Your task to perform on an android device: Go to eBay Image 0: 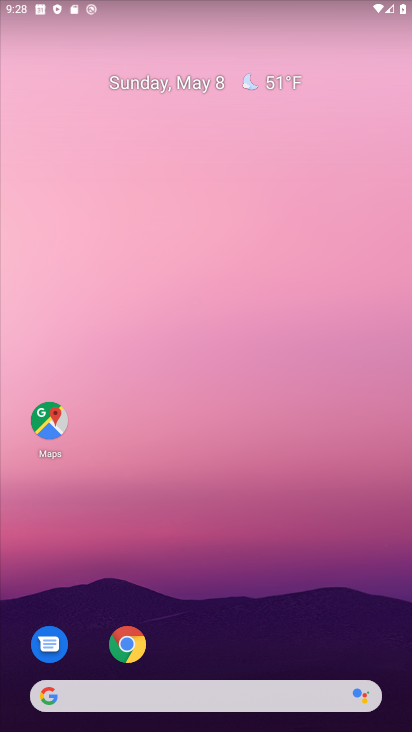
Step 0: drag from (225, 547) to (265, 114)
Your task to perform on an android device: Go to eBay Image 1: 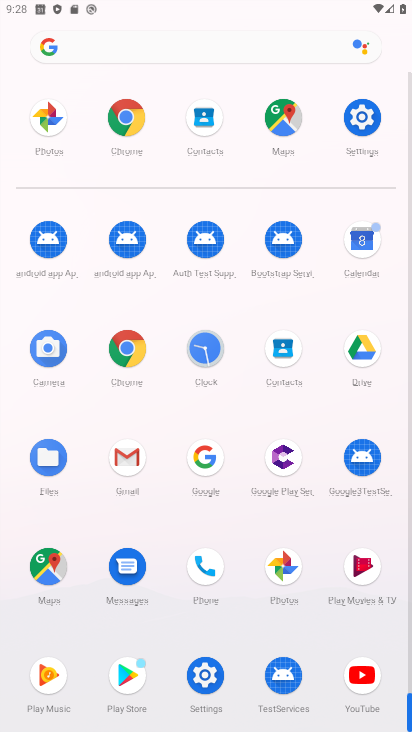
Step 1: click (218, 47)
Your task to perform on an android device: Go to eBay Image 2: 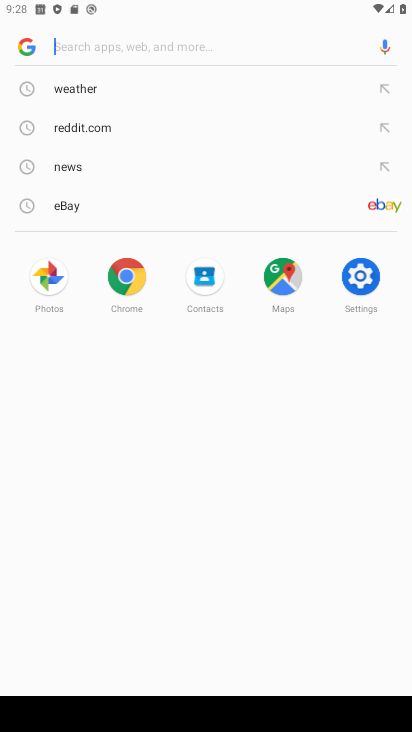
Step 2: click (85, 202)
Your task to perform on an android device: Go to eBay Image 3: 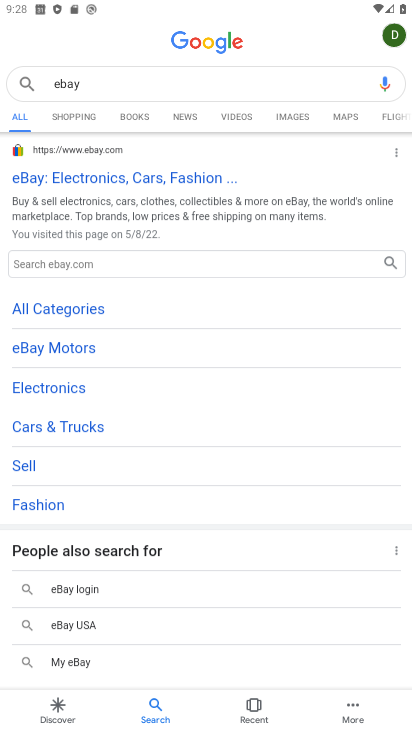
Step 3: click (32, 168)
Your task to perform on an android device: Go to eBay Image 4: 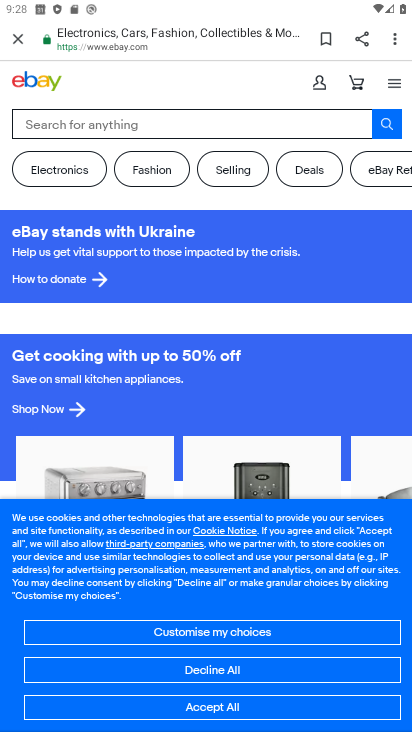
Step 4: task complete